Your task to perform on an android device: delete browsing data in the chrome app Image 0: 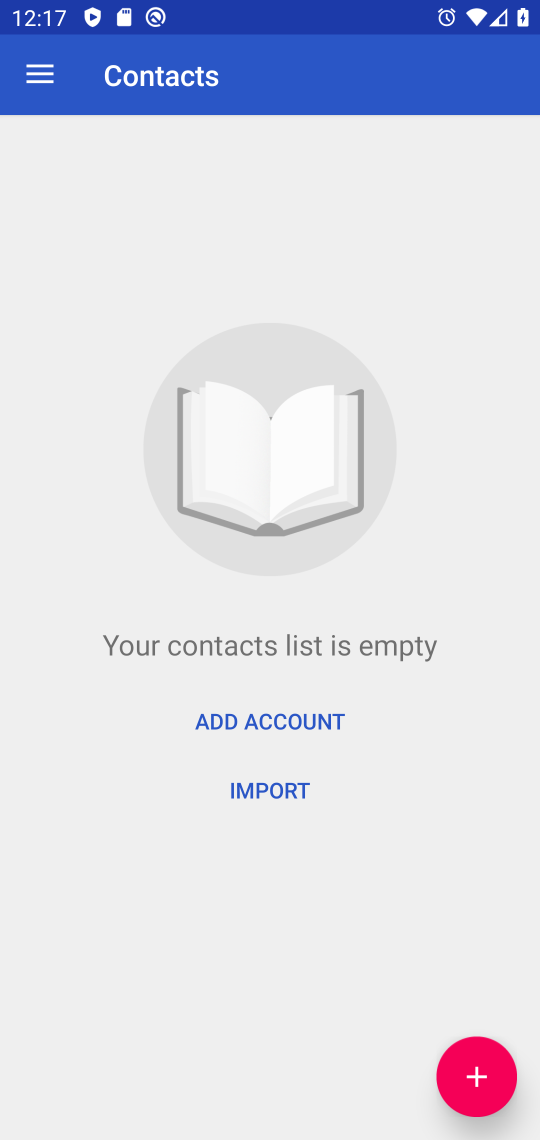
Step 0: drag from (275, 965) to (351, 372)
Your task to perform on an android device: delete browsing data in the chrome app Image 1: 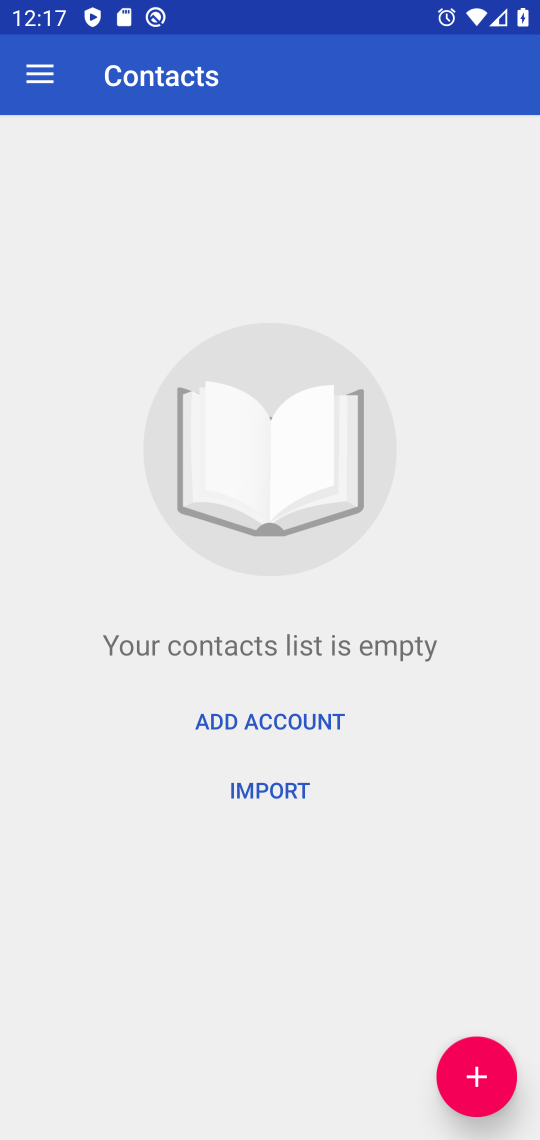
Step 1: press home button
Your task to perform on an android device: delete browsing data in the chrome app Image 2: 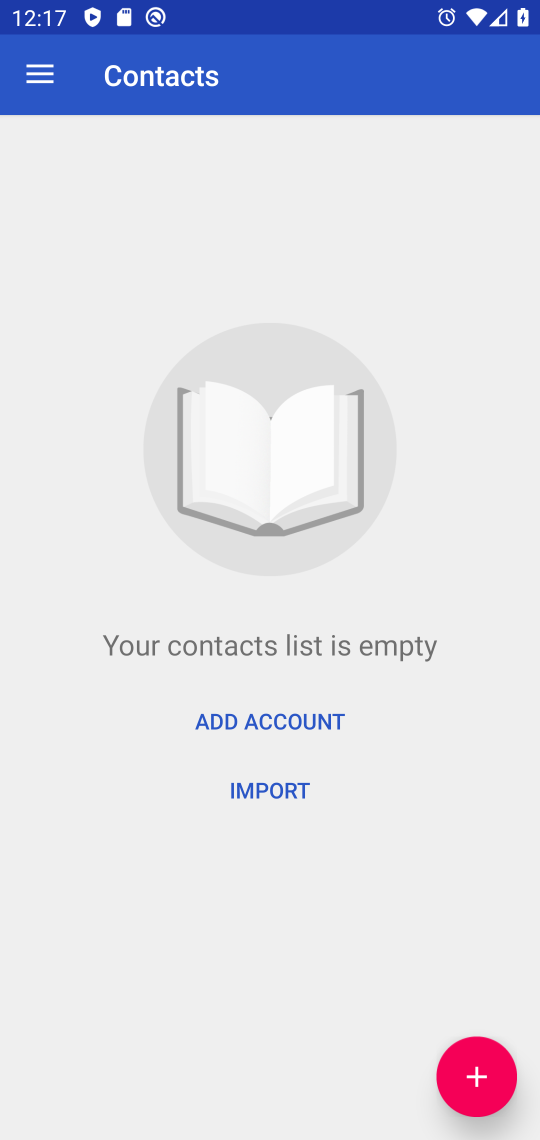
Step 2: drag from (262, 895) to (306, 274)
Your task to perform on an android device: delete browsing data in the chrome app Image 3: 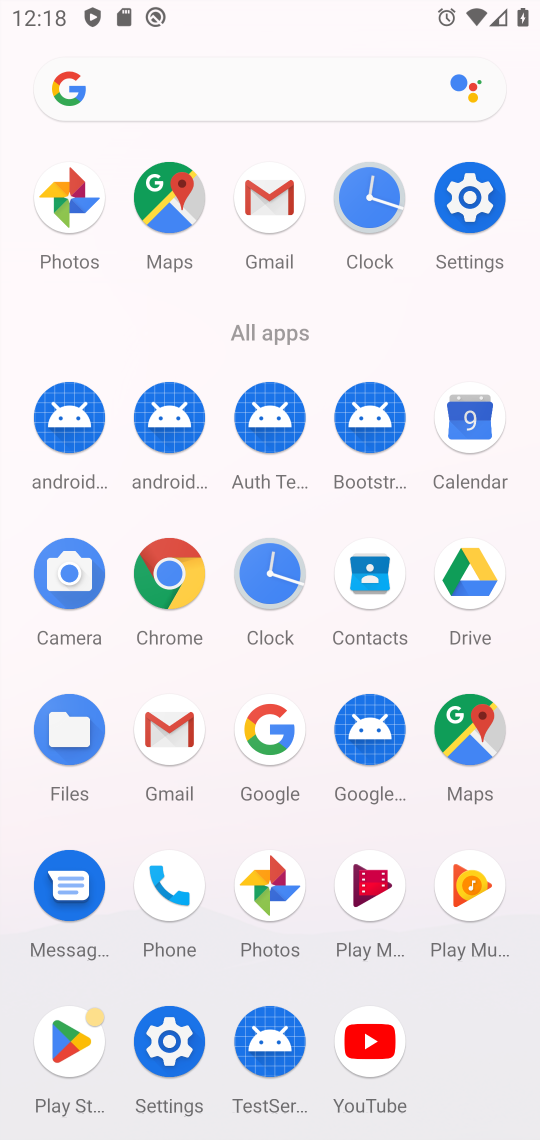
Step 3: click (158, 557)
Your task to perform on an android device: delete browsing data in the chrome app Image 4: 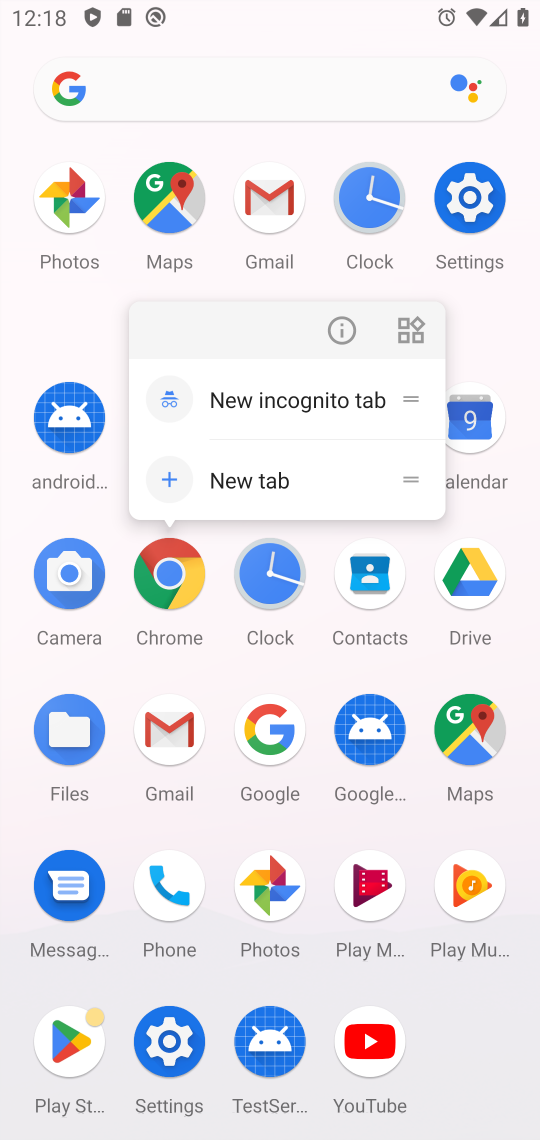
Step 4: click (334, 334)
Your task to perform on an android device: delete browsing data in the chrome app Image 5: 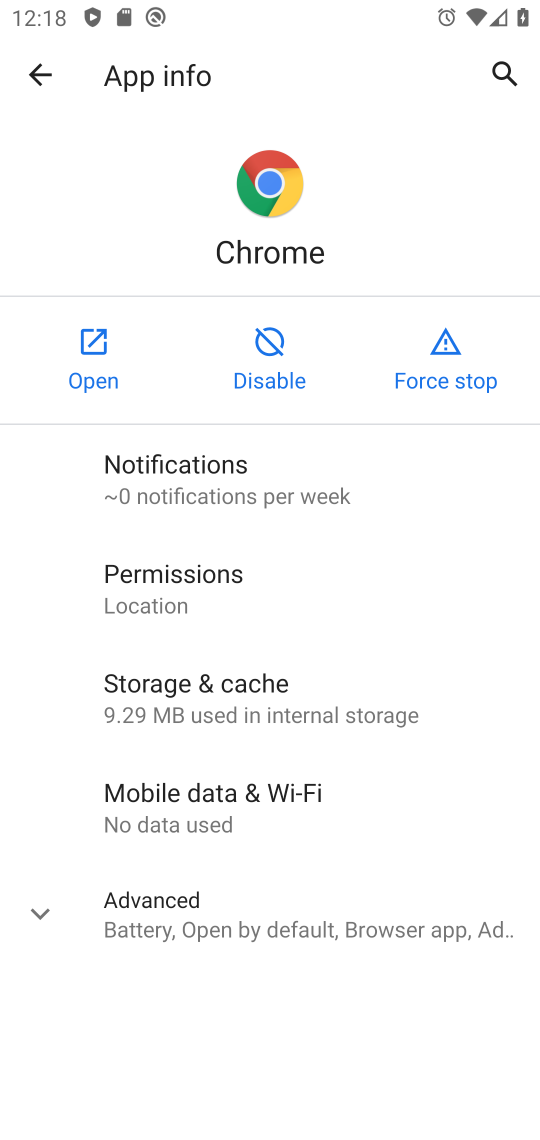
Step 5: click (105, 357)
Your task to perform on an android device: delete browsing data in the chrome app Image 6: 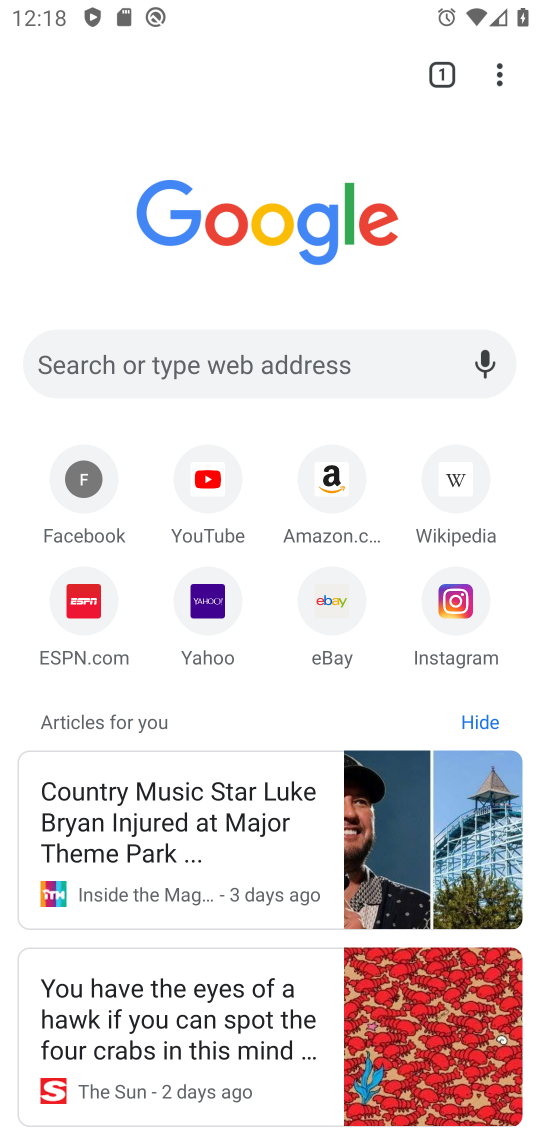
Step 6: drag from (500, 79) to (293, 423)
Your task to perform on an android device: delete browsing data in the chrome app Image 7: 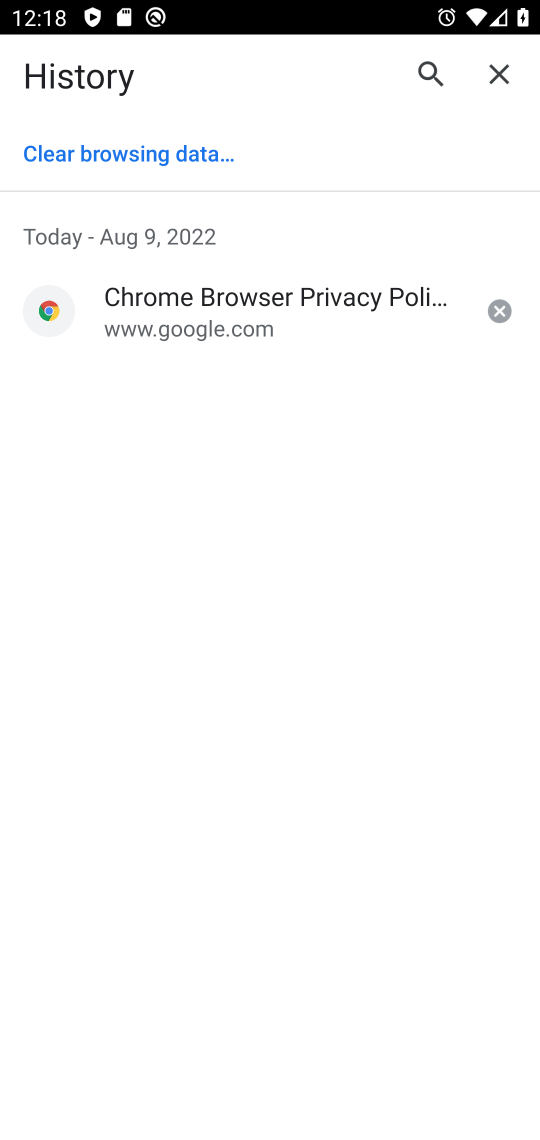
Step 7: drag from (324, 948) to (224, 359)
Your task to perform on an android device: delete browsing data in the chrome app Image 8: 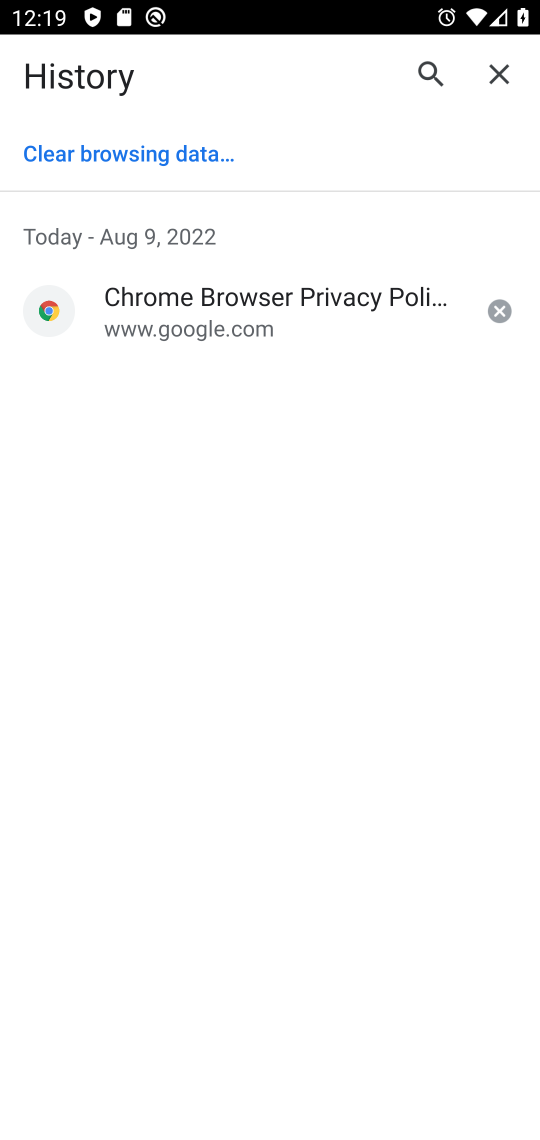
Step 8: click (78, 159)
Your task to perform on an android device: delete browsing data in the chrome app Image 9: 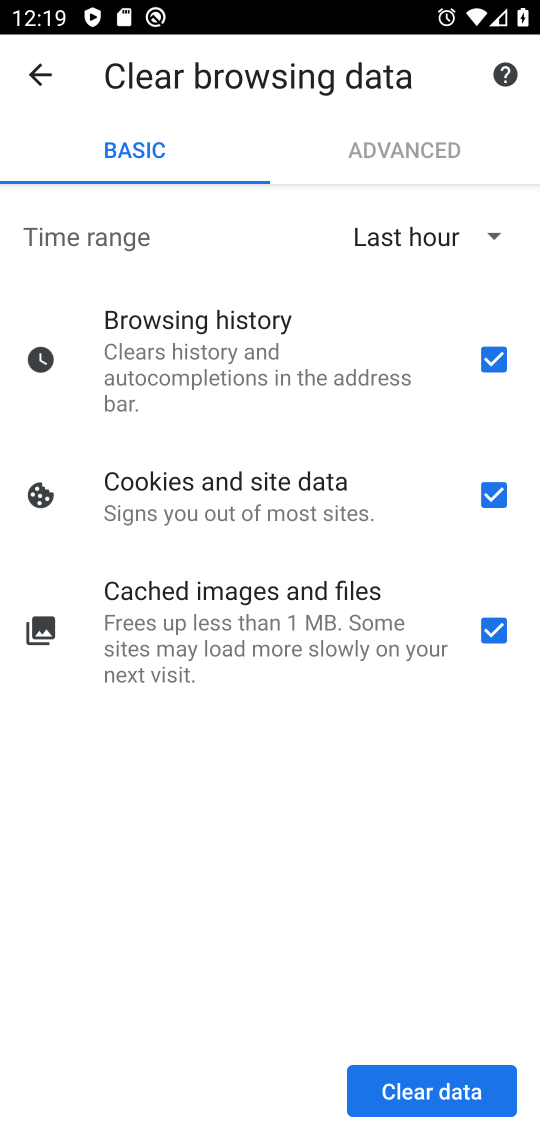
Step 9: drag from (331, 849) to (340, 506)
Your task to perform on an android device: delete browsing data in the chrome app Image 10: 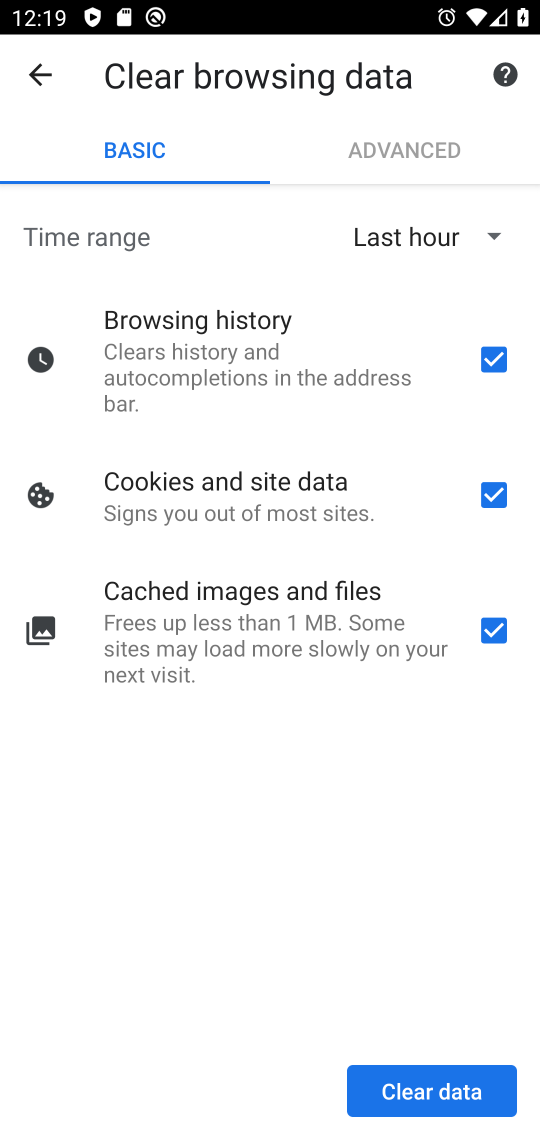
Step 10: click (417, 1088)
Your task to perform on an android device: delete browsing data in the chrome app Image 11: 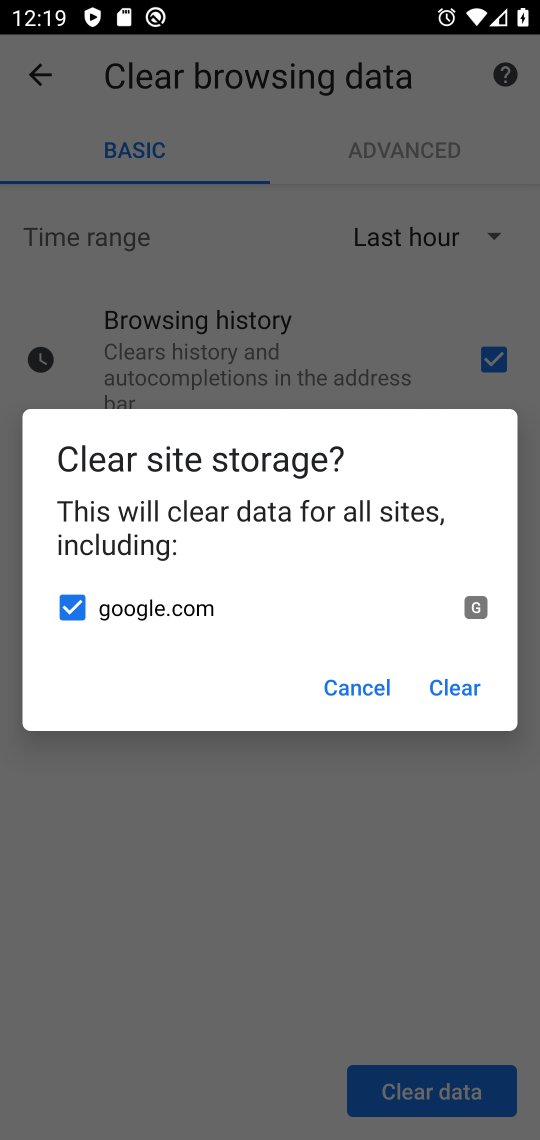
Step 11: click (442, 694)
Your task to perform on an android device: delete browsing data in the chrome app Image 12: 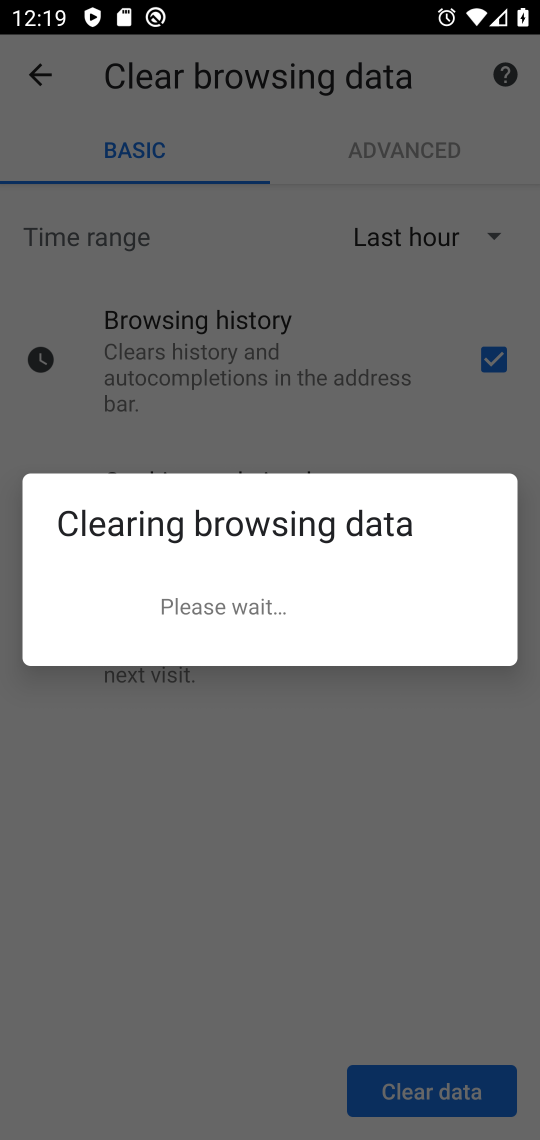
Step 12: task complete